Your task to perform on an android device: Turn on the flashlight Image 0: 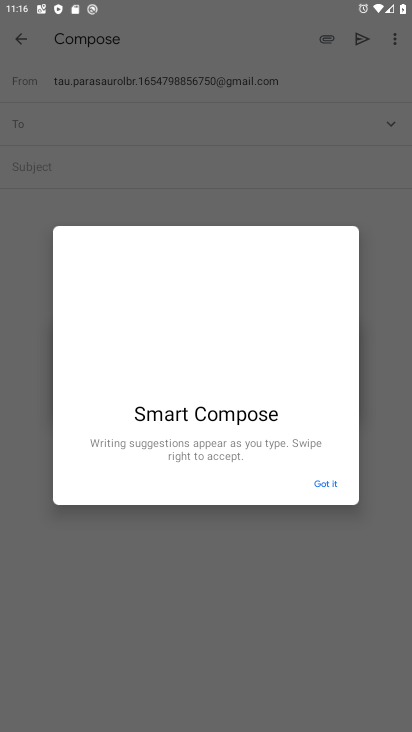
Step 0: press home button
Your task to perform on an android device: Turn on the flashlight Image 1: 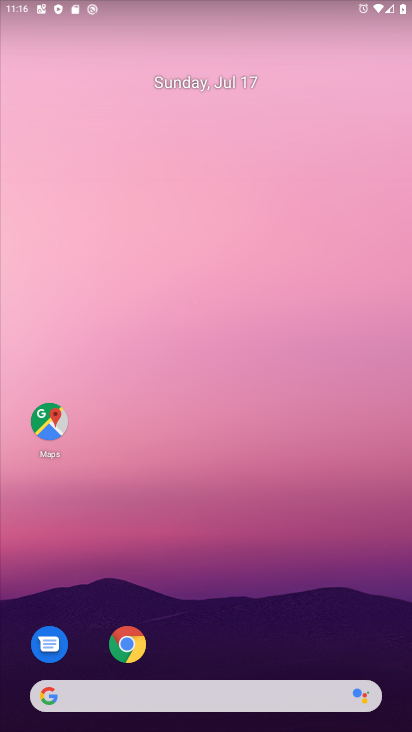
Step 1: drag from (278, 595) to (250, 90)
Your task to perform on an android device: Turn on the flashlight Image 2: 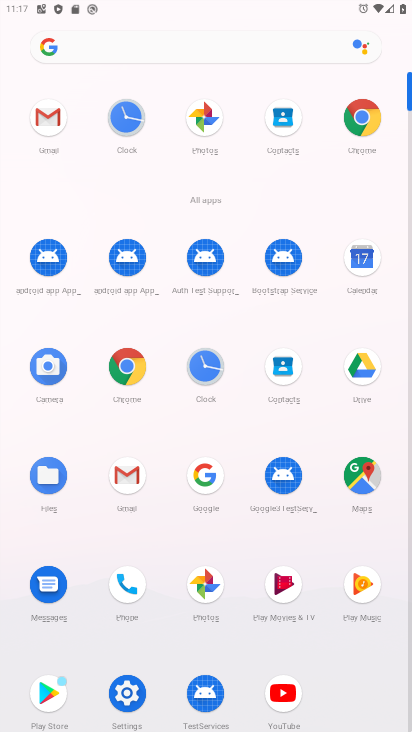
Step 2: click (118, 694)
Your task to perform on an android device: Turn on the flashlight Image 3: 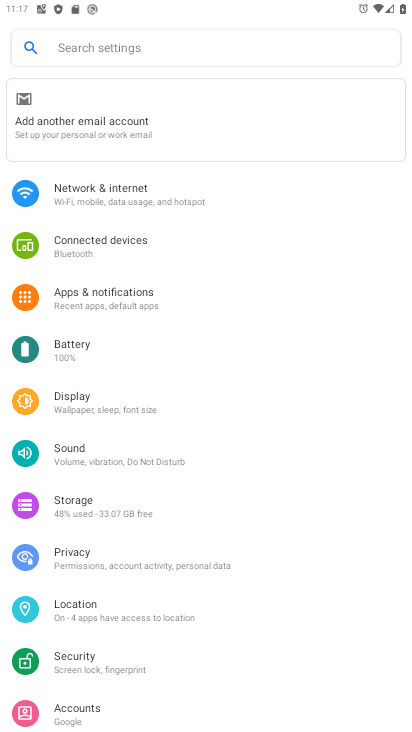
Step 3: click (76, 412)
Your task to perform on an android device: Turn on the flashlight Image 4: 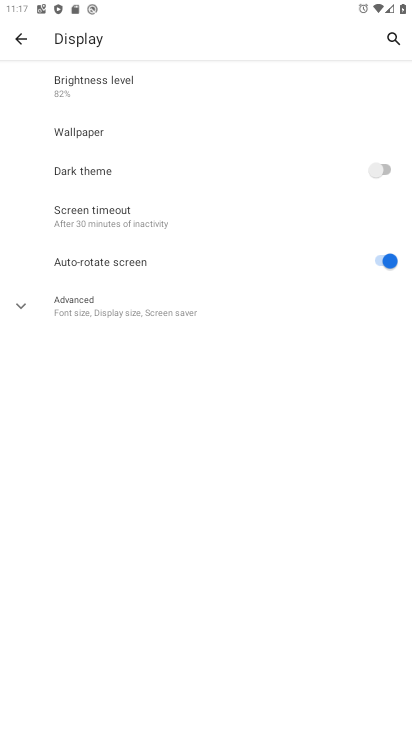
Step 4: click (108, 311)
Your task to perform on an android device: Turn on the flashlight Image 5: 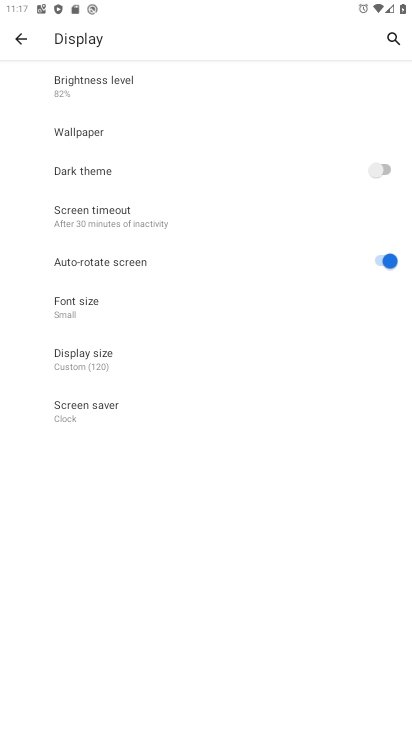
Step 5: click (143, 211)
Your task to perform on an android device: Turn on the flashlight Image 6: 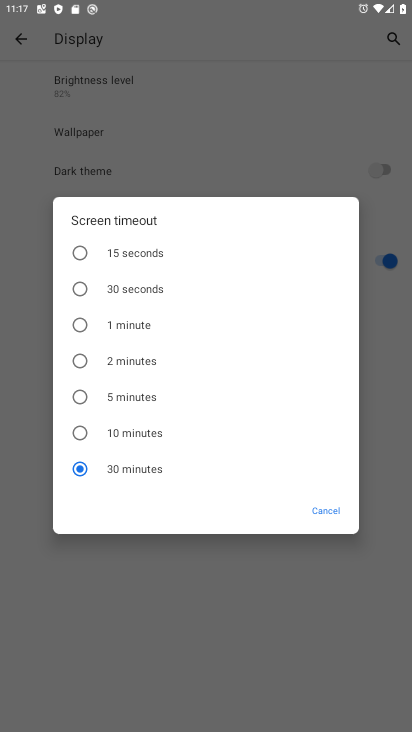
Step 6: task complete